Your task to perform on an android device: turn off priority inbox in the gmail app Image 0: 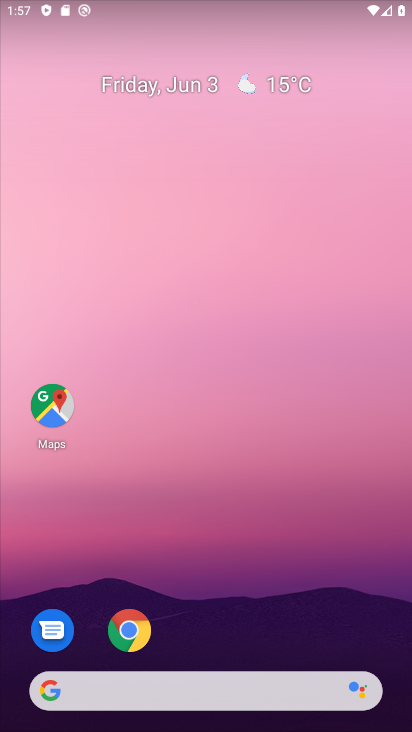
Step 0: drag from (381, 653) to (388, 49)
Your task to perform on an android device: turn off priority inbox in the gmail app Image 1: 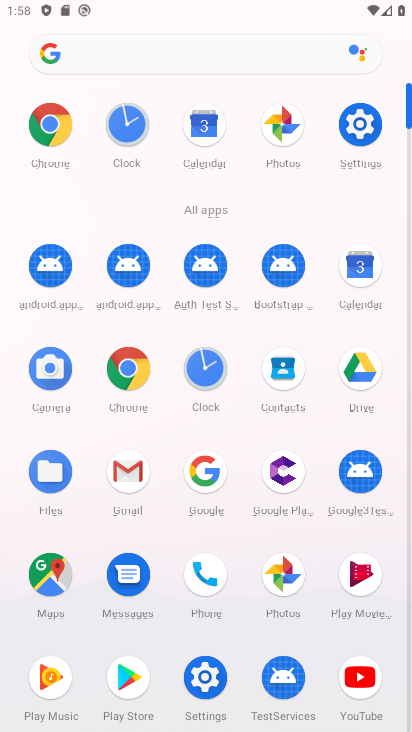
Step 1: click (128, 486)
Your task to perform on an android device: turn off priority inbox in the gmail app Image 2: 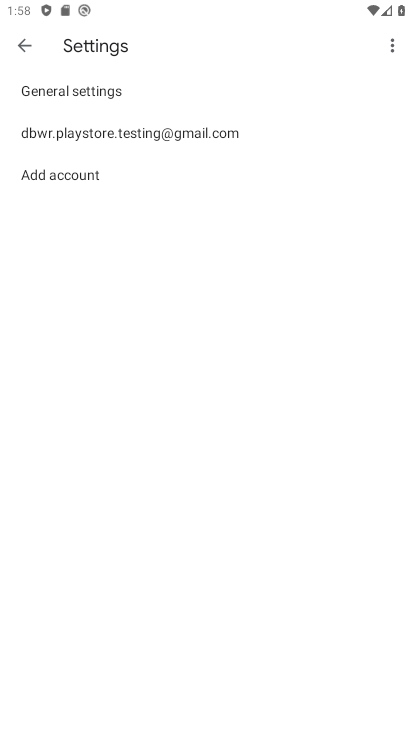
Step 2: click (94, 135)
Your task to perform on an android device: turn off priority inbox in the gmail app Image 3: 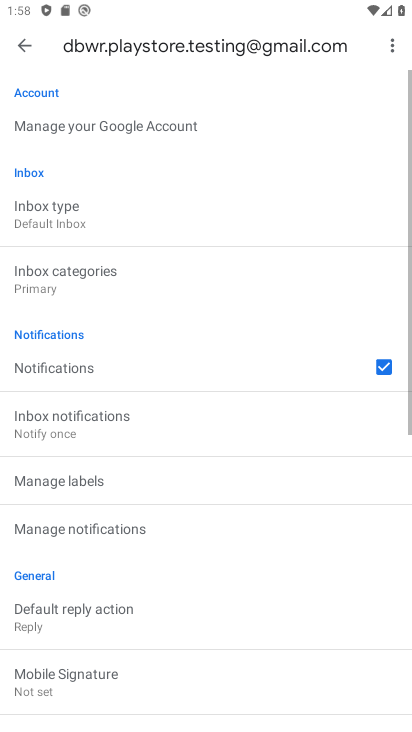
Step 3: click (74, 207)
Your task to perform on an android device: turn off priority inbox in the gmail app Image 4: 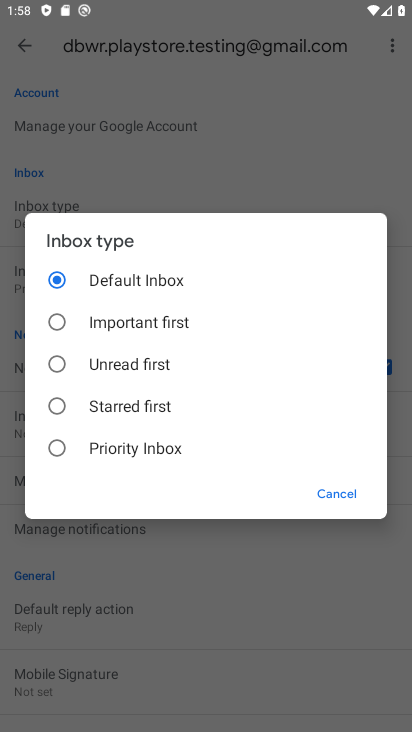
Step 4: drag from (71, 445) to (136, 212)
Your task to perform on an android device: turn off priority inbox in the gmail app Image 5: 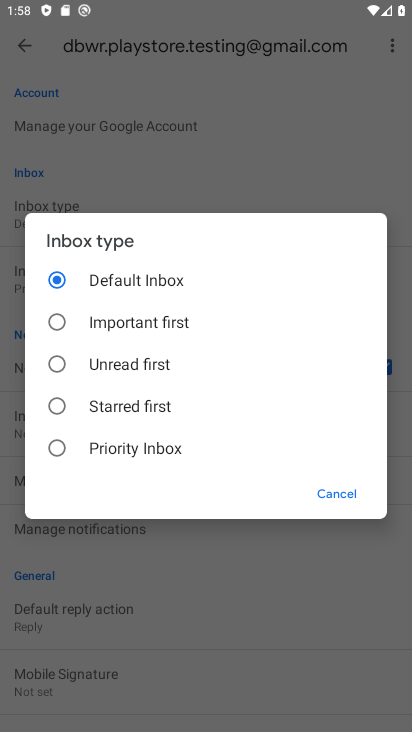
Step 5: click (115, 280)
Your task to perform on an android device: turn off priority inbox in the gmail app Image 6: 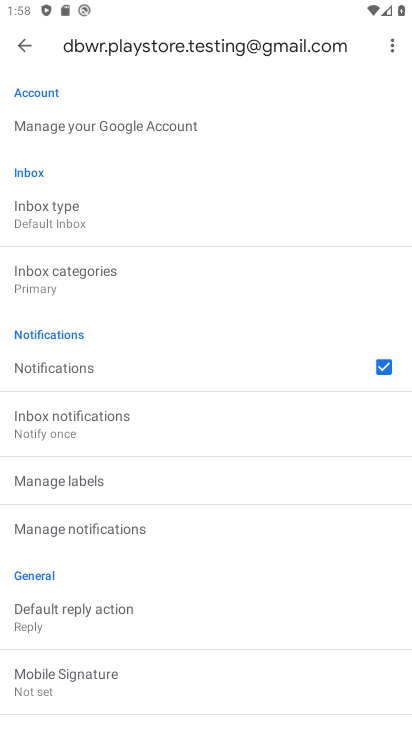
Step 6: task complete